Your task to perform on an android device: turn pop-ups off in chrome Image 0: 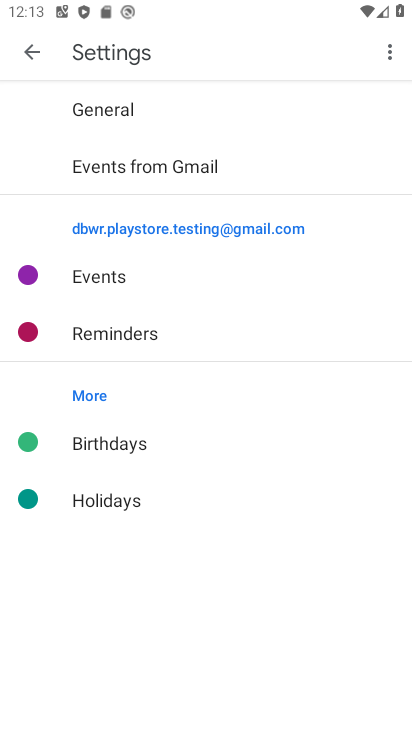
Step 0: press home button
Your task to perform on an android device: turn pop-ups off in chrome Image 1: 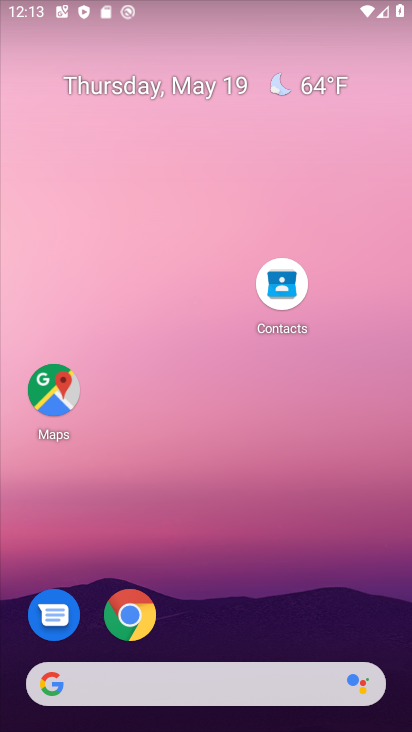
Step 1: drag from (170, 555) to (221, 2)
Your task to perform on an android device: turn pop-ups off in chrome Image 2: 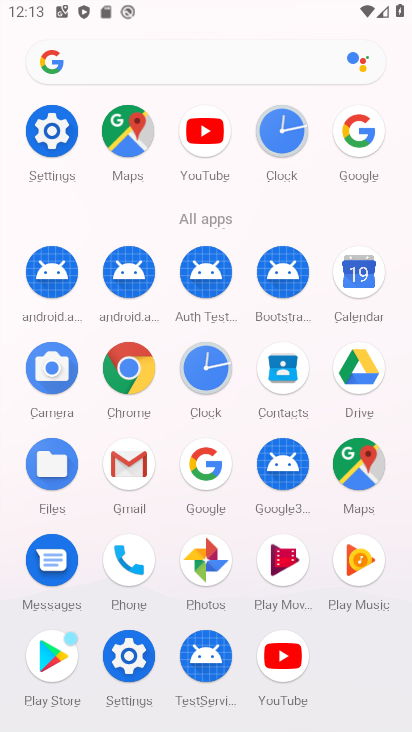
Step 2: click (140, 404)
Your task to perform on an android device: turn pop-ups off in chrome Image 3: 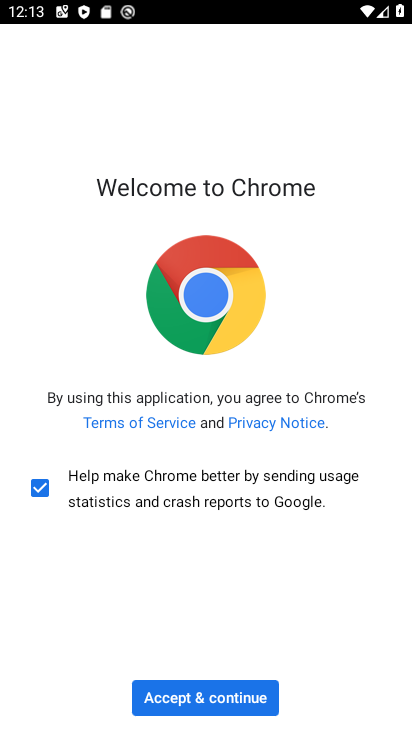
Step 3: click (177, 706)
Your task to perform on an android device: turn pop-ups off in chrome Image 4: 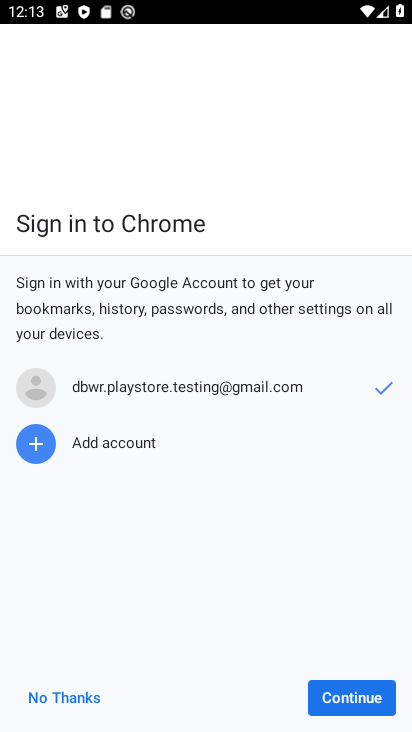
Step 4: click (356, 700)
Your task to perform on an android device: turn pop-ups off in chrome Image 5: 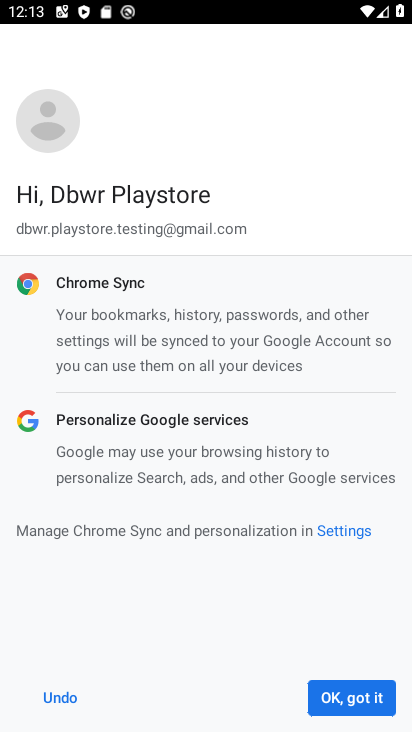
Step 5: click (356, 700)
Your task to perform on an android device: turn pop-ups off in chrome Image 6: 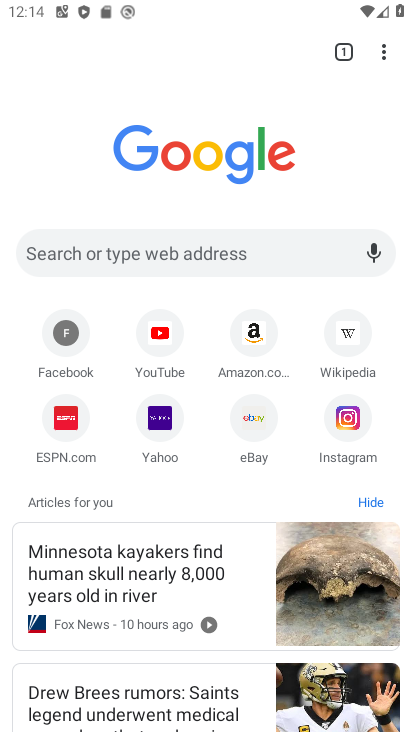
Step 6: click (377, 42)
Your task to perform on an android device: turn pop-ups off in chrome Image 7: 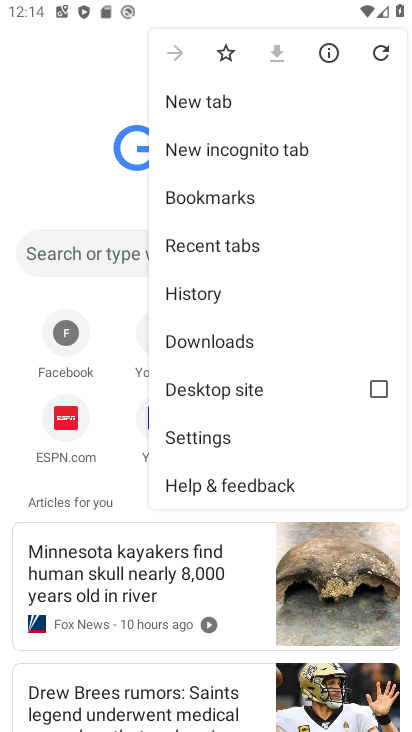
Step 7: drag from (287, 434) to (304, 295)
Your task to perform on an android device: turn pop-ups off in chrome Image 8: 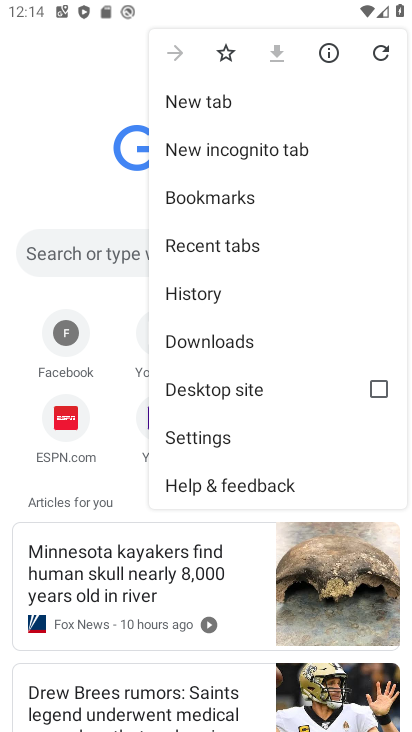
Step 8: click (258, 433)
Your task to perform on an android device: turn pop-ups off in chrome Image 9: 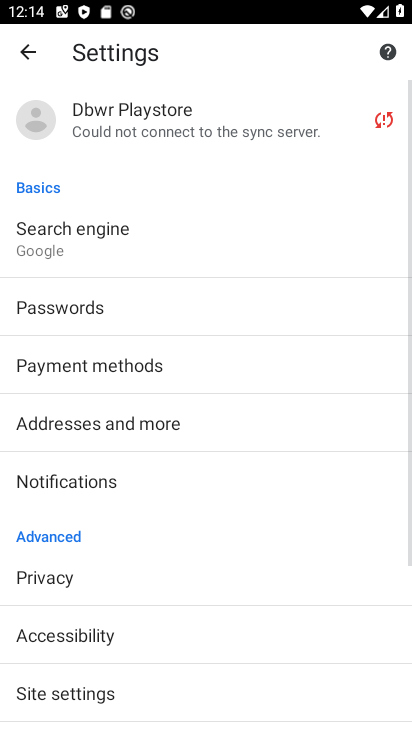
Step 9: drag from (223, 587) to (200, 367)
Your task to perform on an android device: turn pop-ups off in chrome Image 10: 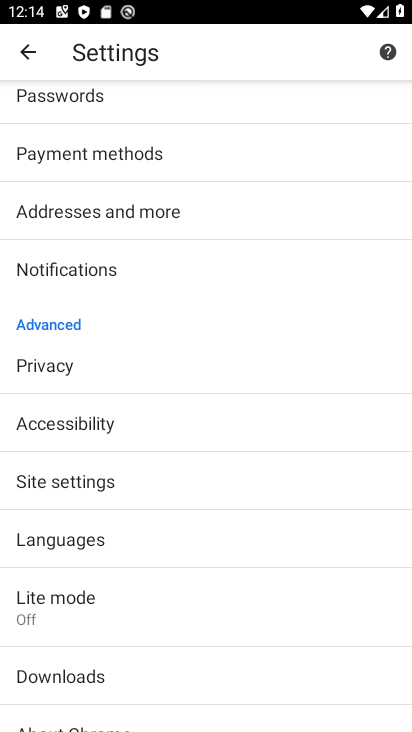
Step 10: drag from (208, 540) to (221, 442)
Your task to perform on an android device: turn pop-ups off in chrome Image 11: 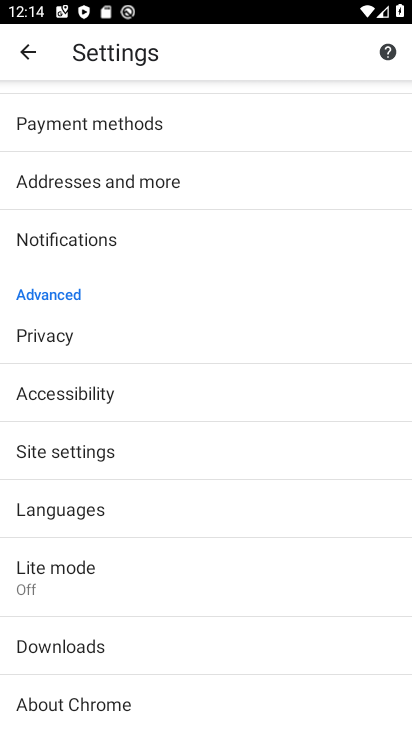
Step 11: click (200, 458)
Your task to perform on an android device: turn pop-ups off in chrome Image 12: 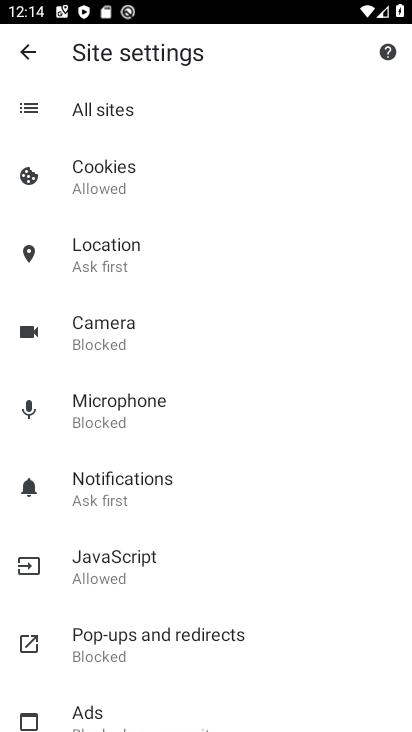
Step 12: drag from (191, 549) to (171, 398)
Your task to perform on an android device: turn pop-ups off in chrome Image 13: 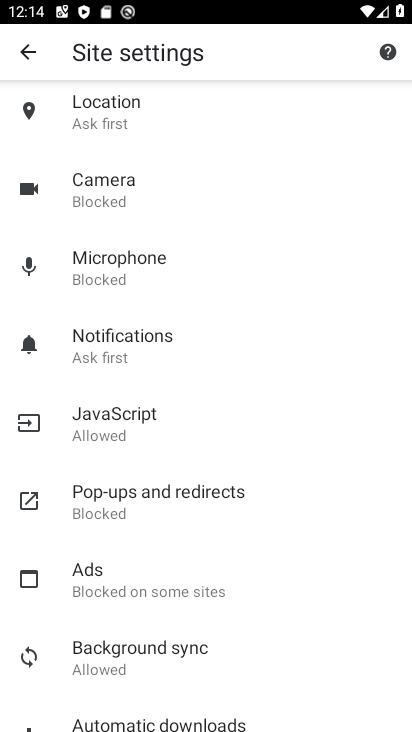
Step 13: click (187, 496)
Your task to perform on an android device: turn pop-ups off in chrome Image 14: 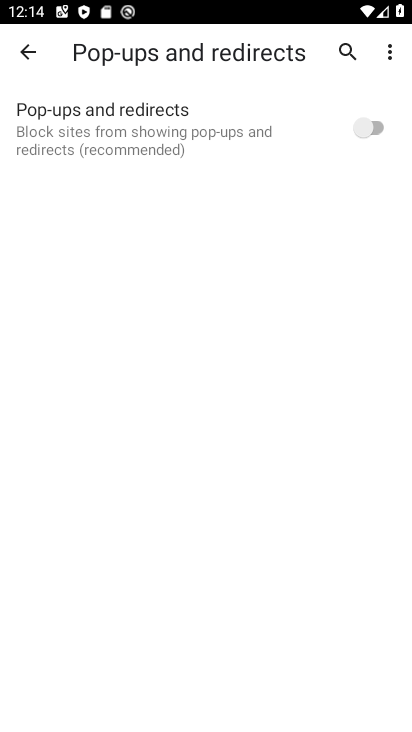
Step 14: task complete